Your task to perform on an android device: turn on airplane mode Image 0: 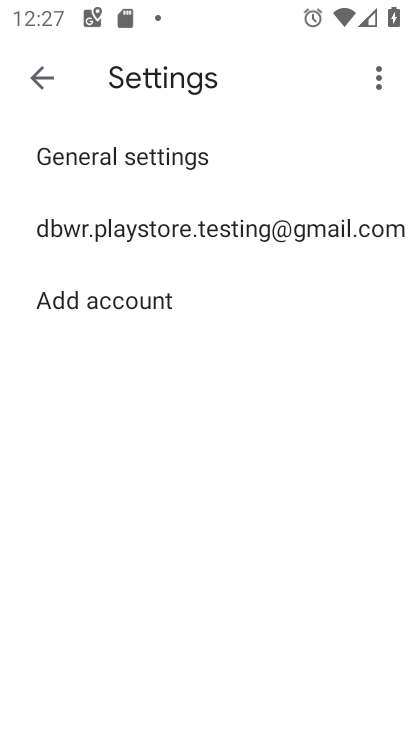
Step 0: press home button
Your task to perform on an android device: turn on airplane mode Image 1: 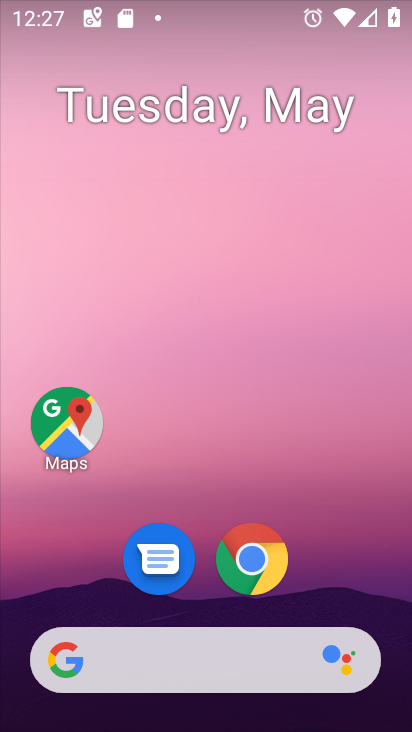
Step 1: drag from (353, 593) to (274, 143)
Your task to perform on an android device: turn on airplane mode Image 2: 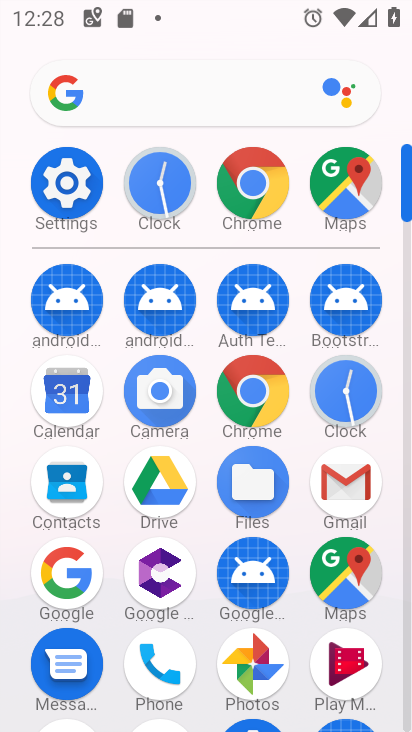
Step 2: click (83, 189)
Your task to perform on an android device: turn on airplane mode Image 3: 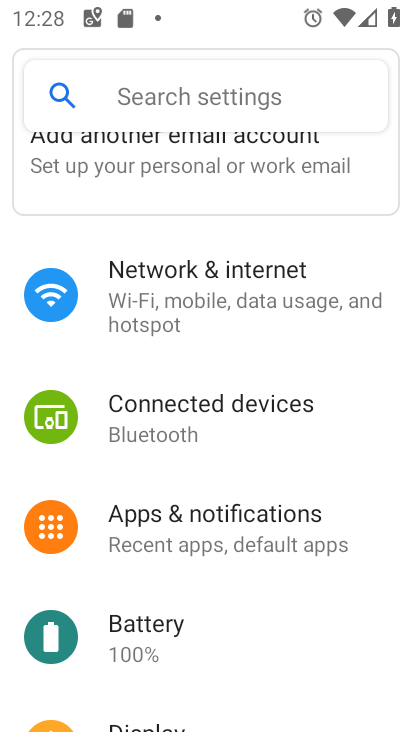
Step 3: drag from (301, 642) to (231, 167)
Your task to perform on an android device: turn on airplane mode Image 4: 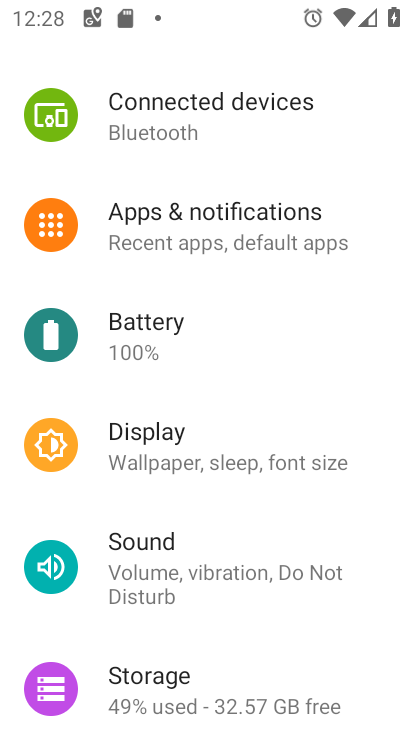
Step 4: drag from (239, 157) to (248, 681)
Your task to perform on an android device: turn on airplane mode Image 5: 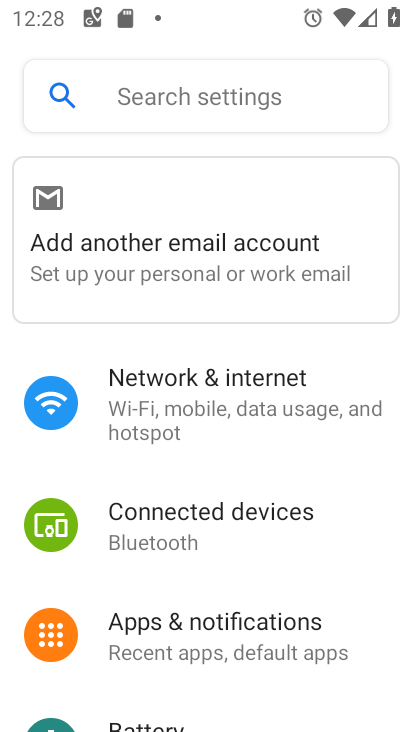
Step 5: click (245, 433)
Your task to perform on an android device: turn on airplane mode Image 6: 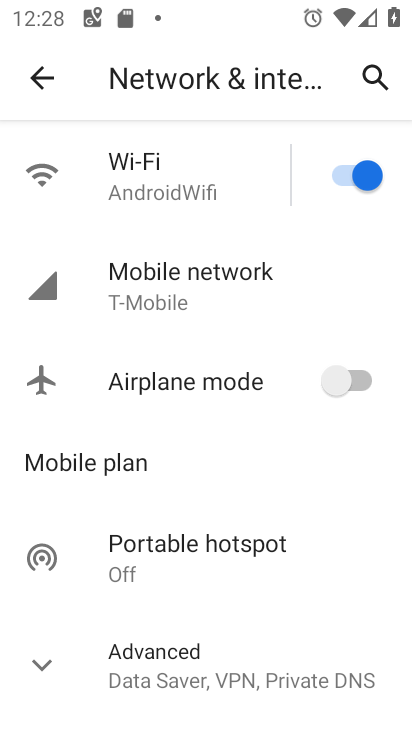
Step 6: click (340, 399)
Your task to perform on an android device: turn on airplane mode Image 7: 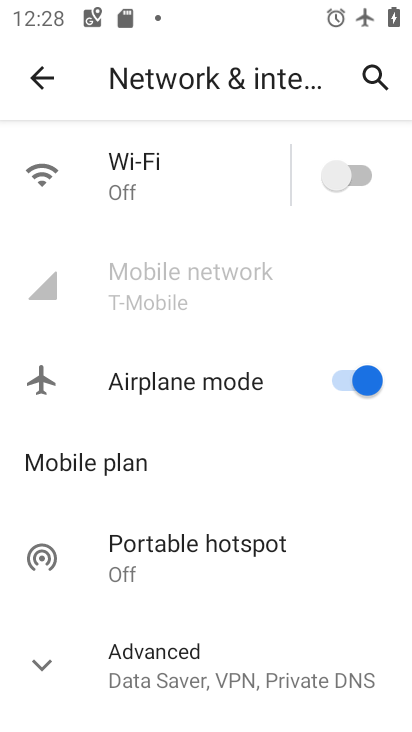
Step 7: task complete